Your task to perform on an android device: Search for sushi restaurants on Maps Image 0: 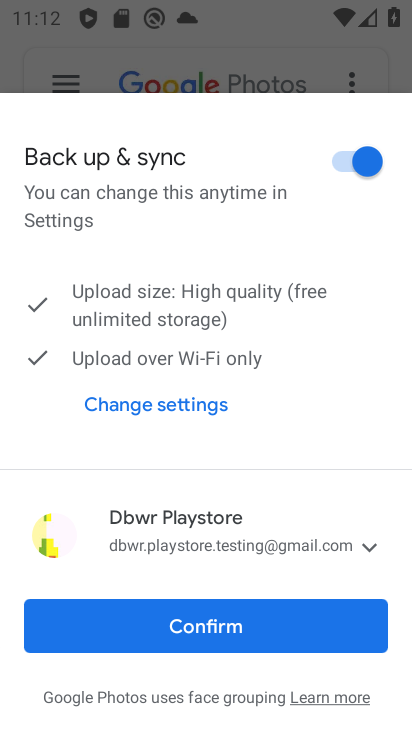
Step 0: press home button
Your task to perform on an android device: Search for sushi restaurants on Maps Image 1: 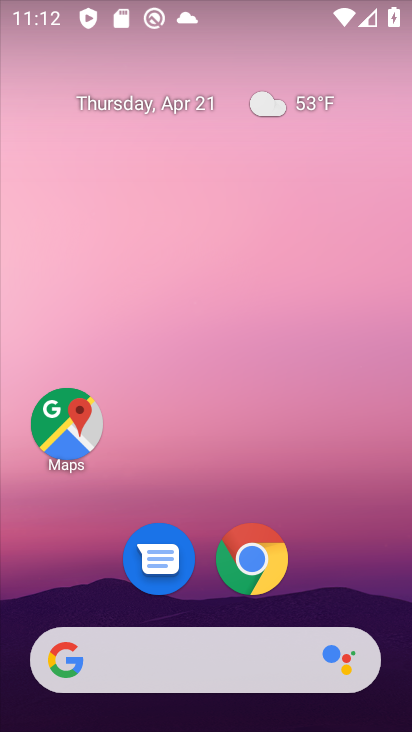
Step 1: click (45, 406)
Your task to perform on an android device: Search for sushi restaurants on Maps Image 2: 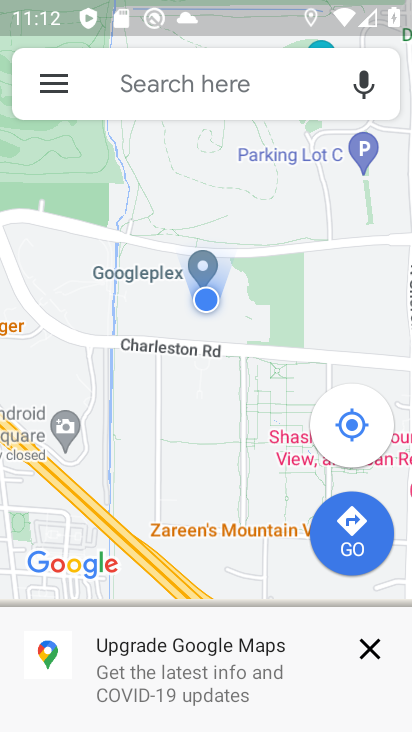
Step 2: click (116, 80)
Your task to perform on an android device: Search for sushi restaurants on Maps Image 3: 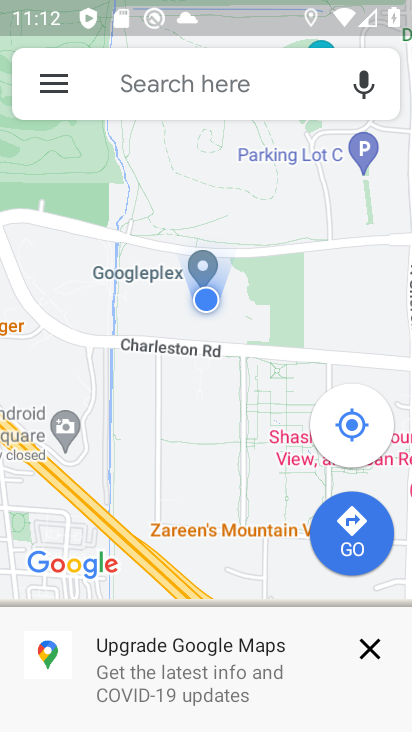
Step 3: click (102, 80)
Your task to perform on an android device: Search for sushi restaurants on Maps Image 4: 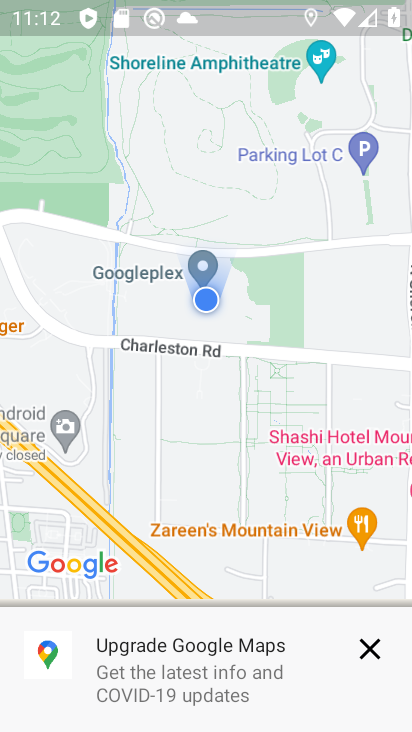
Step 4: click (120, 65)
Your task to perform on an android device: Search for sushi restaurants on Maps Image 5: 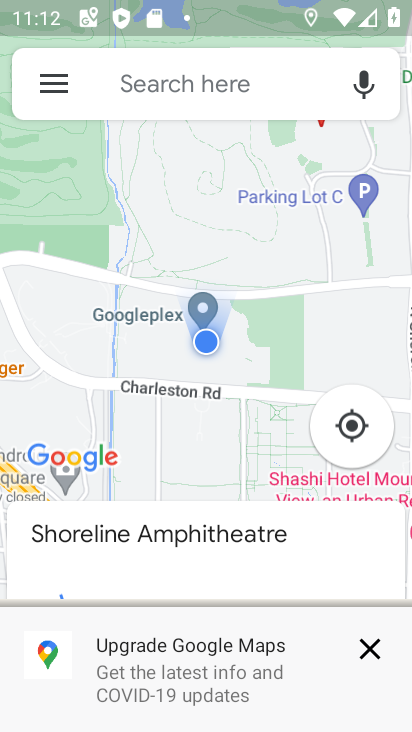
Step 5: click (111, 85)
Your task to perform on an android device: Search for sushi restaurants on Maps Image 6: 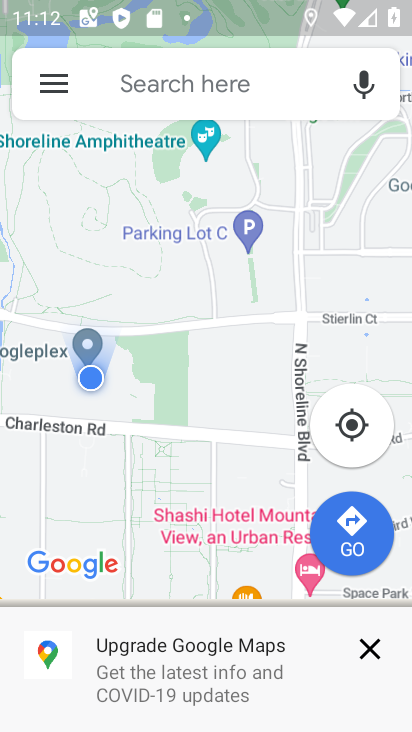
Step 6: click (105, 89)
Your task to perform on an android device: Search for sushi restaurants on Maps Image 7: 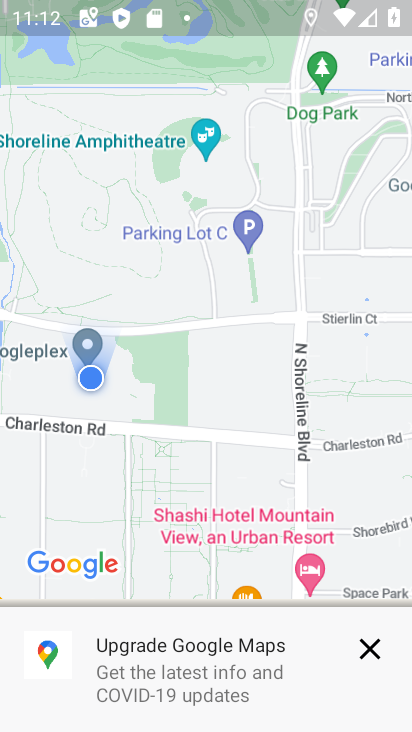
Step 7: click (113, 69)
Your task to perform on an android device: Search for sushi restaurants on Maps Image 8: 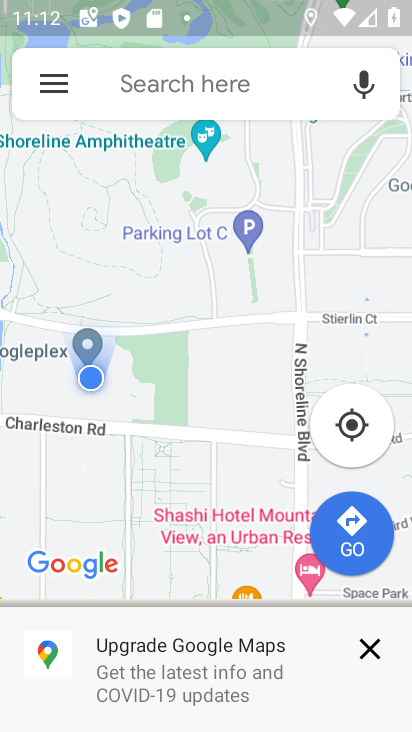
Step 8: click (135, 87)
Your task to perform on an android device: Search for sushi restaurants on Maps Image 9: 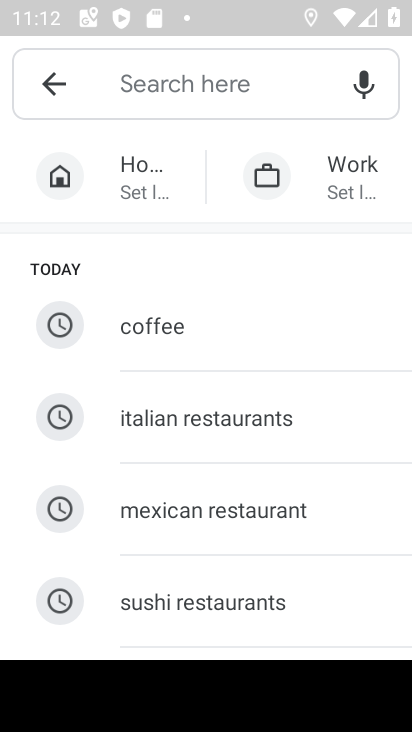
Step 9: type "sushi restaurant"
Your task to perform on an android device: Search for sushi restaurants on Maps Image 10: 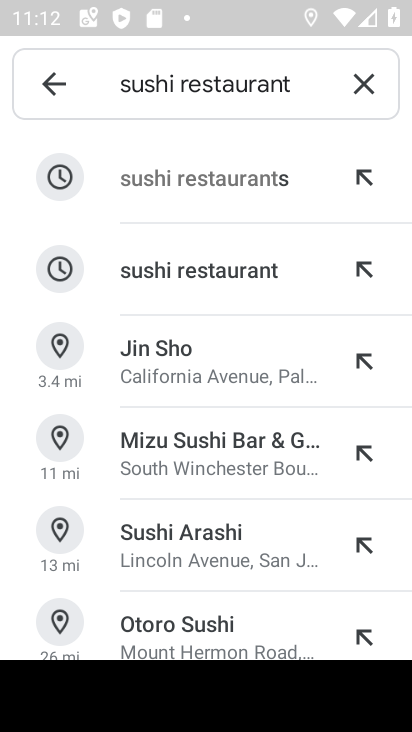
Step 10: click (223, 174)
Your task to perform on an android device: Search for sushi restaurants on Maps Image 11: 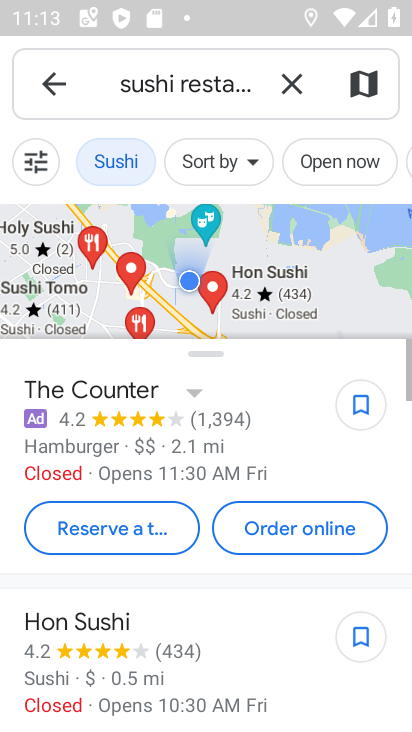
Step 11: task complete